Your task to perform on an android device: turn off data saver in the chrome app Image 0: 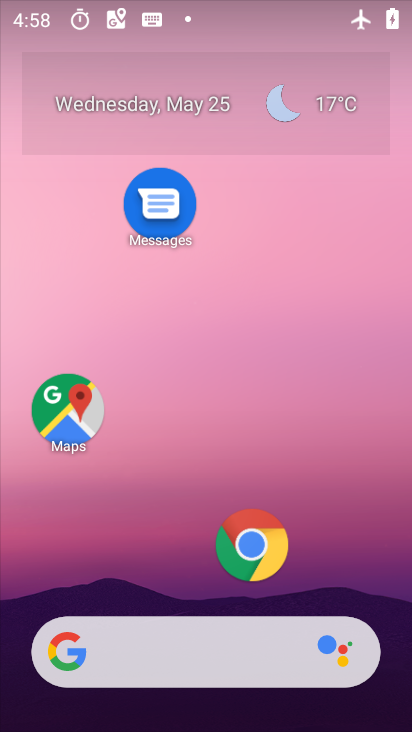
Step 0: click (253, 548)
Your task to perform on an android device: turn off data saver in the chrome app Image 1: 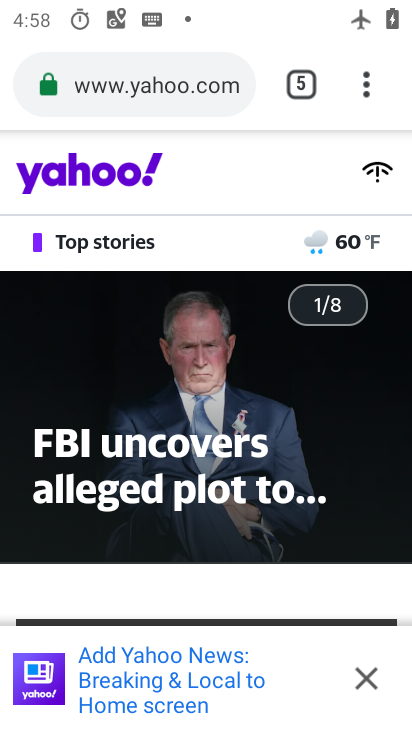
Step 1: click (369, 81)
Your task to perform on an android device: turn off data saver in the chrome app Image 2: 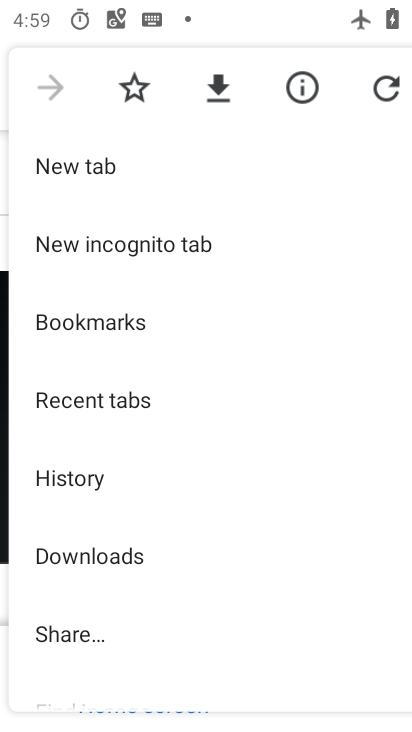
Step 2: drag from (184, 603) to (219, 179)
Your task to perform on an android device: turn off data saver in the chrome app Image 3: 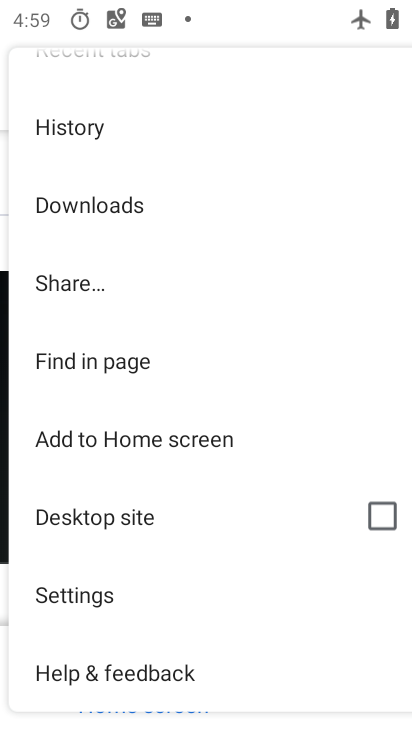
Step 3: click (109, 596)
Your task to perform on an android device: turn off data saver in the chrome app Image 4: 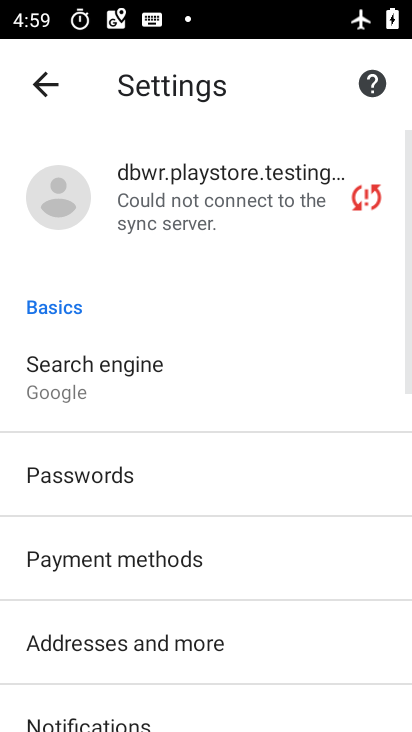
Step 4: drag from (234, 601) to (273, 163)
Your task to perform on an android device: turn off data saver in the chrome app Image 5: 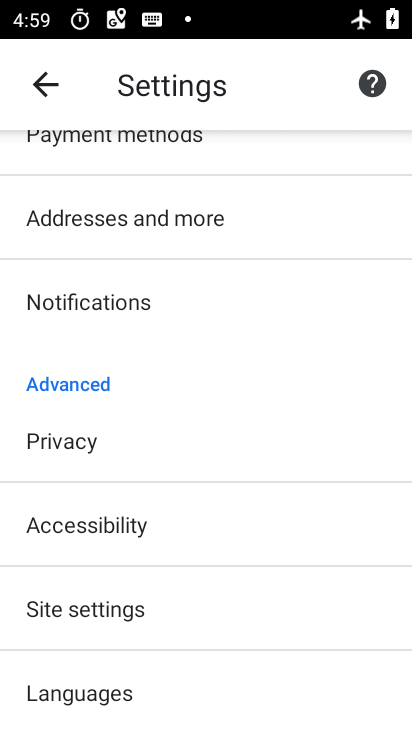
Step 5: drag from (170, 665) to (253, 249)
Your task to perform on an android device: turn off data saver in the chrome app Image 6: 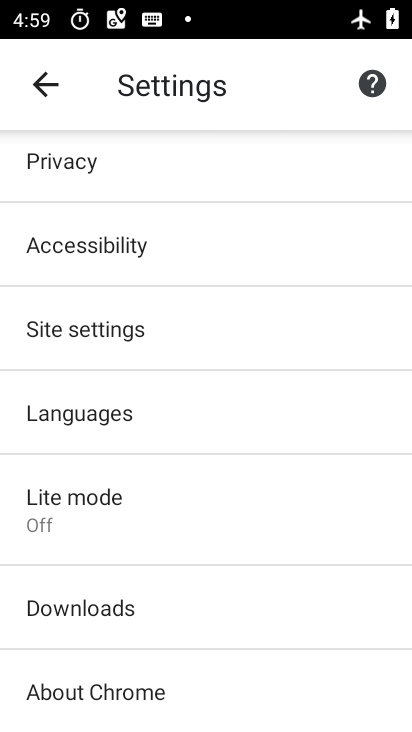
Step 6: click (127, 518)
Your task to perform on an android device: turn off data saver in the chrome app Image 7: 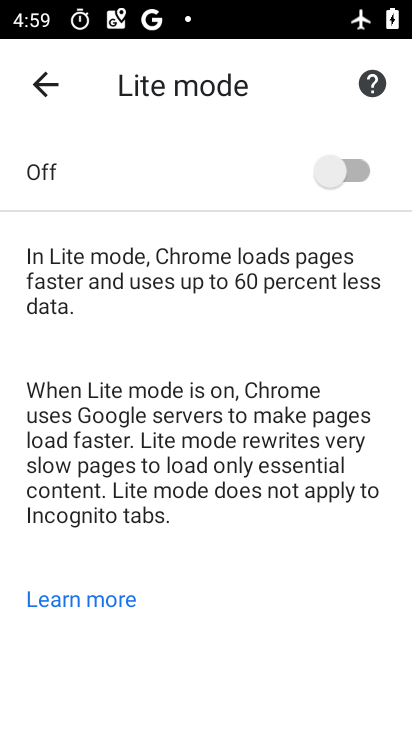
Step 7: task complete